Your task to perform on an android device: Open network settings Image 0: 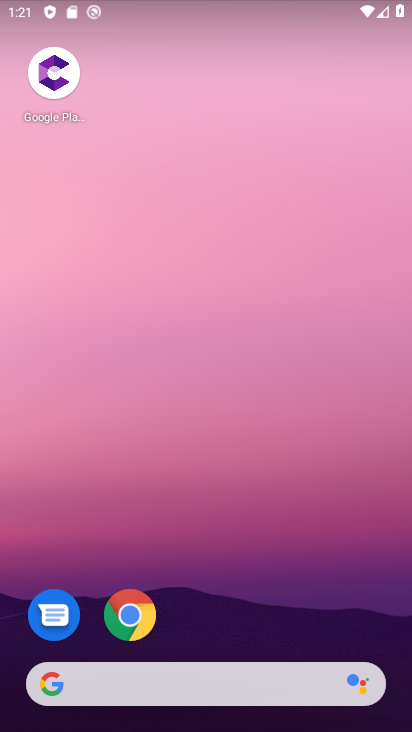
Step 0: drag from (229, 654) to (393, 56)
Your task to perform on an android device: Open network settings Image 1: 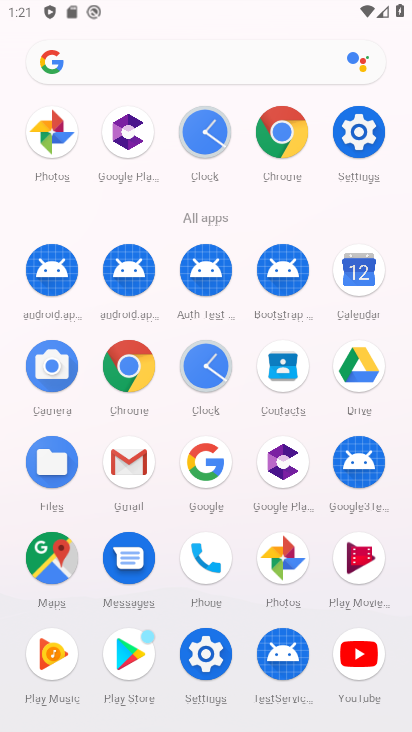
Step 1: click (365, 149)
Your task to perform on an android device: Open network settings Image 2: 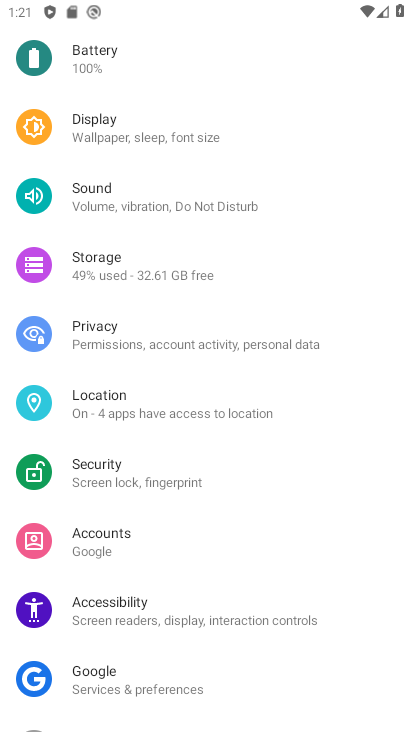
Step 2: drag from (188, 112) to (158, 427)
Your task to perform on an android device: Open network settings Image 3: 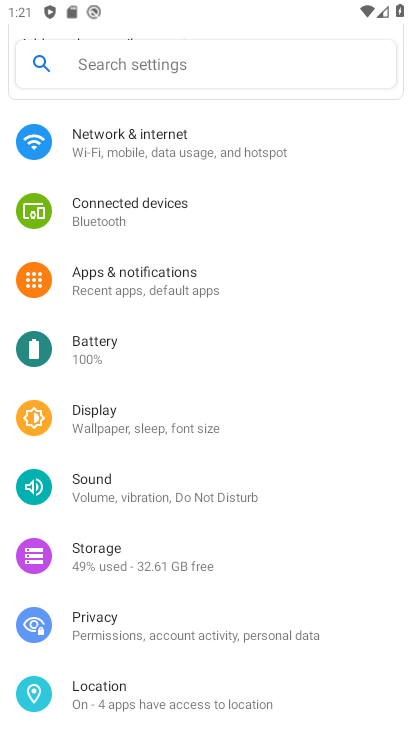
Step 3: click (178, 137)
Your task to perform on an android device: Open network settings Image 4: 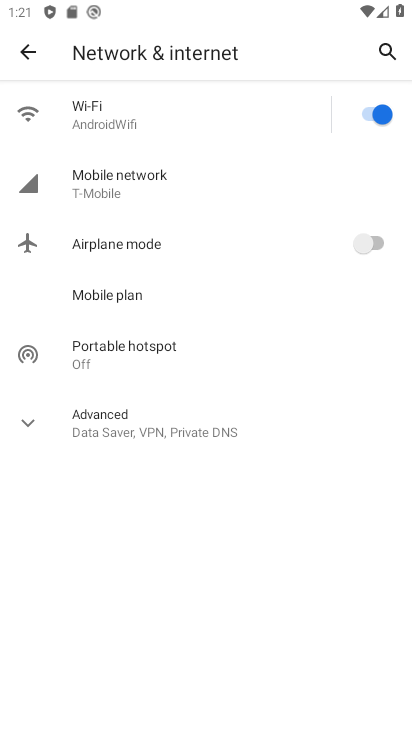
Step 4: task complete